Your task to perform on an android device: turn off javascript in the chrome app Image 0: 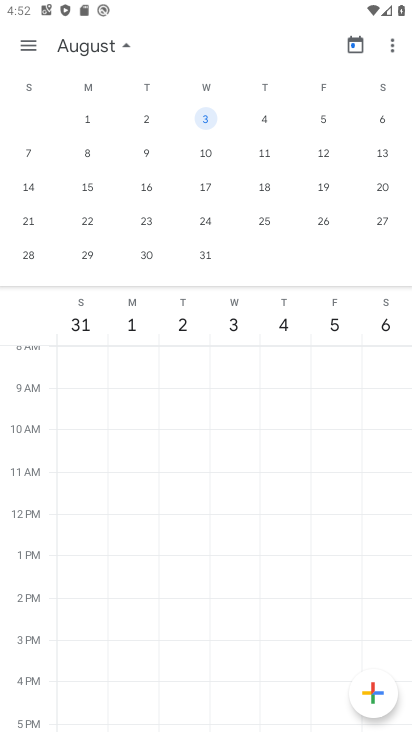
Step 0: press home button
Your task to perform on an android device: turn off javascript in the chrome app Image 1: 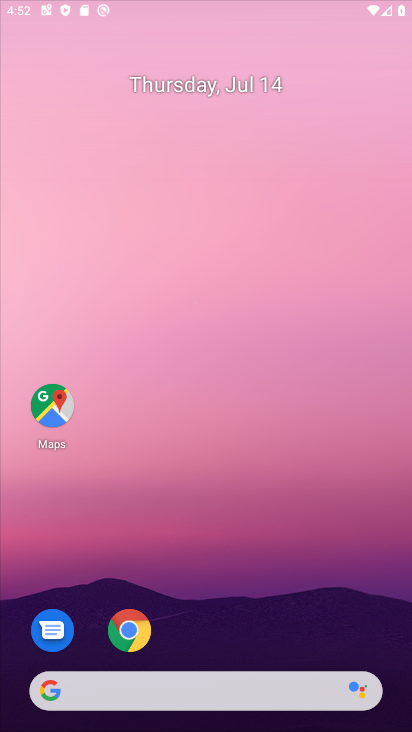
Step 1: drag from (343, 701) to (387, 11)
Your task to perform on an android device: turn off javascript in the chrome app Image 2: 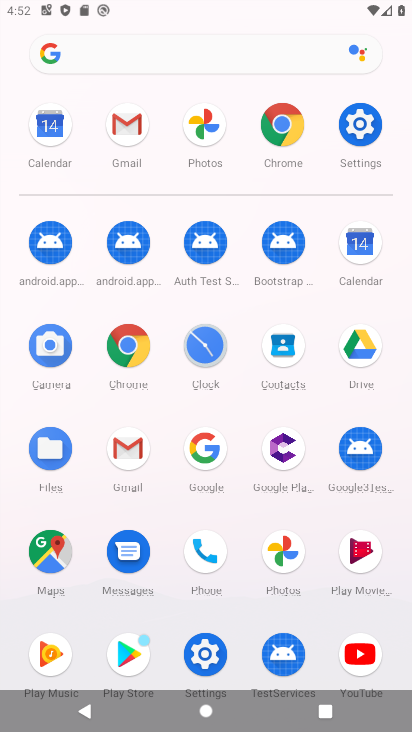
Step 2: click (132, 355)
Your task to perform on an android device: turn off javascript in the chrome app Image 3: 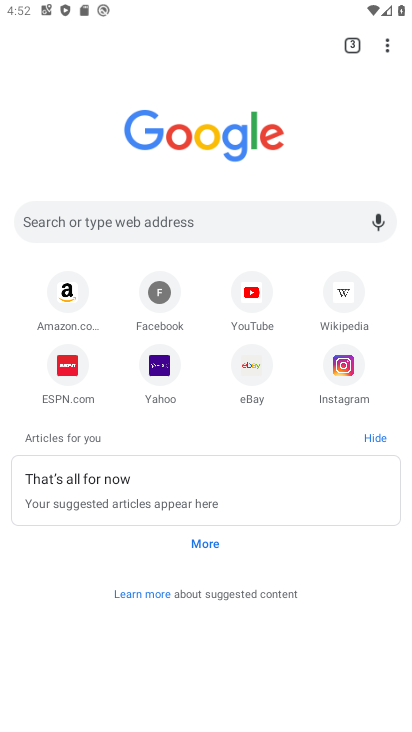
Step 3: drag from (388, 40) to (243, 377)
Your task to perform on an android device: turn off javascript in the chrome app Image 4: 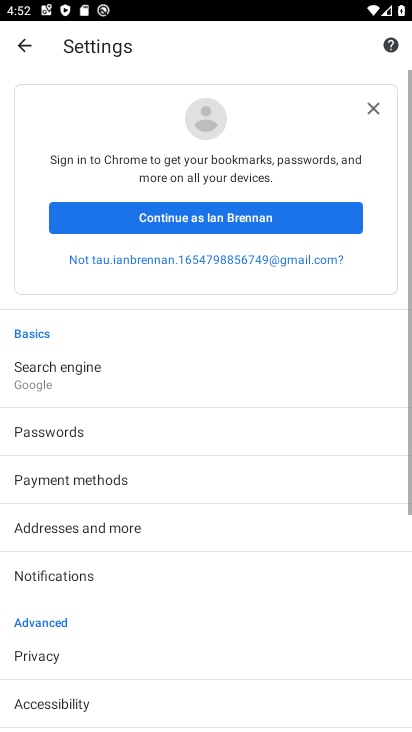
Step 4: drag from (70, 694) to (142, 339)
Your task to perform on an android device: turn off javascript in the chrome app Image 5: 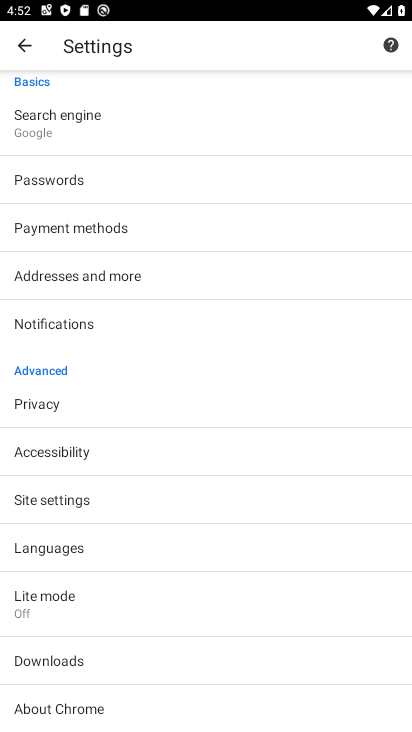
Step 5: click (88, 497)
Your task to perform on an android device: turn off javascript in the chrome app Image 6: 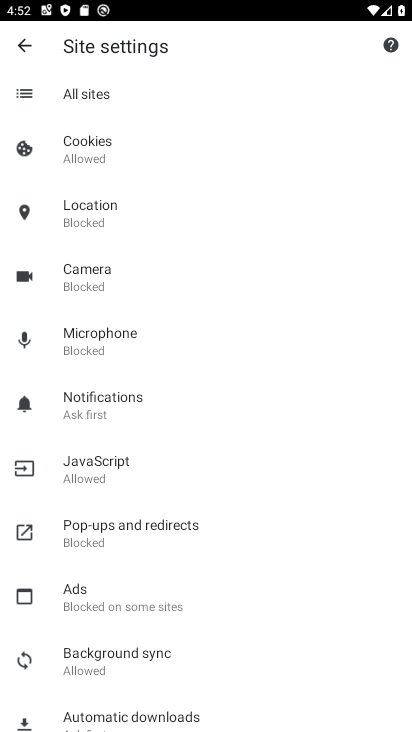
Step 6: click (106, 469)
Your task to perform on an android device: turn off javascript in the chrome app Image 7: 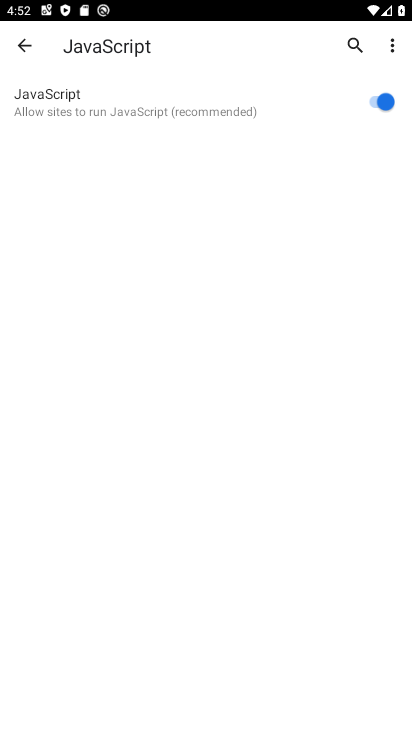
Step 7: click (382, 100)
Your task to perform on an android device: turn off javascript in the chrome app Image 8: 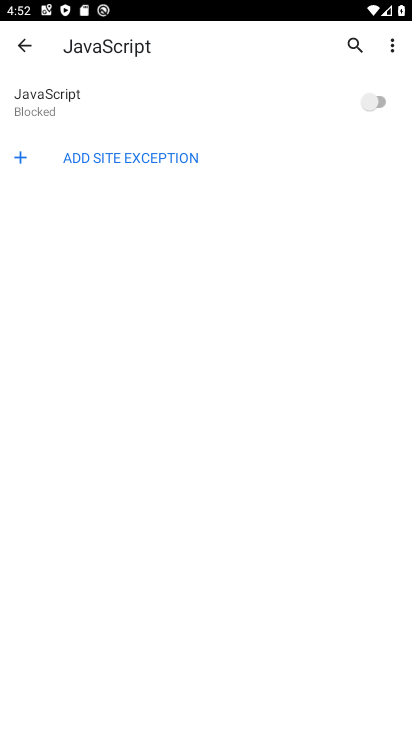
Step 8: task complete